Your task to perform on an android device: open wifi settings Image 0: 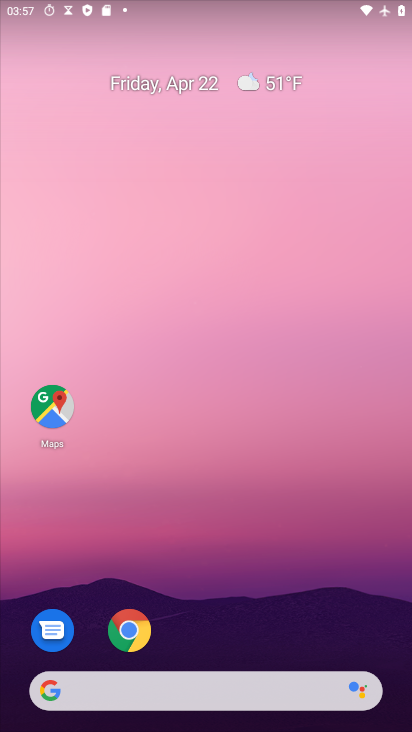
Step 0: drag from (245, 526) to (136, 44)
Your task to perform on an android device: open wifi settings Image 1: 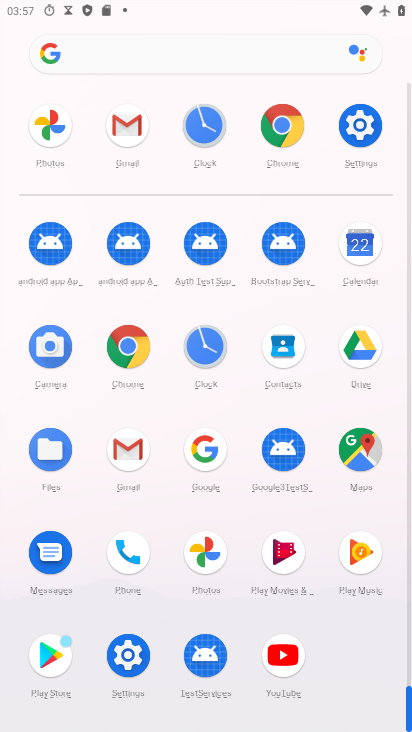
Step 1: click (125, 655)
Your task to perform on an android device: open wifi settings Image 2: 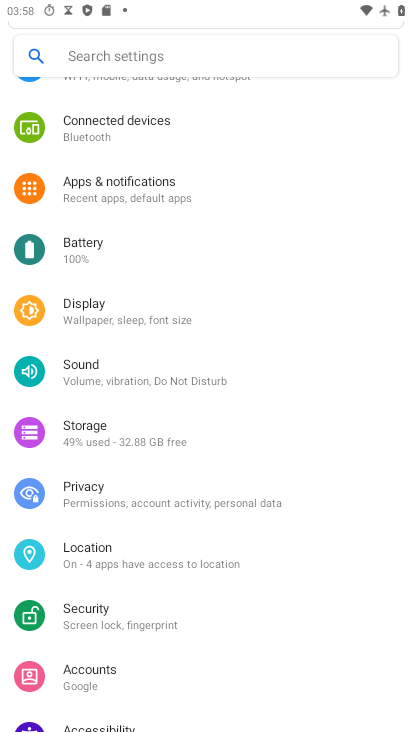
Step 2: drag from (261, 156) to (295, 544)
Your task to perform on an android device: open wifi settings Image 3: 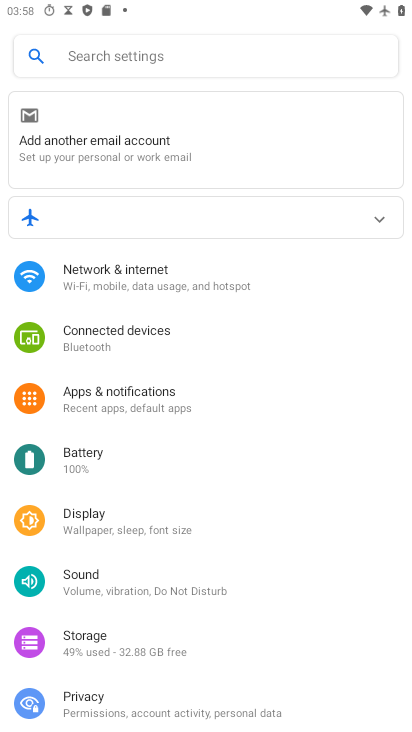
Step 3: click (119, 279)
Your task to perform on an android device: open wifi settings Image 4: 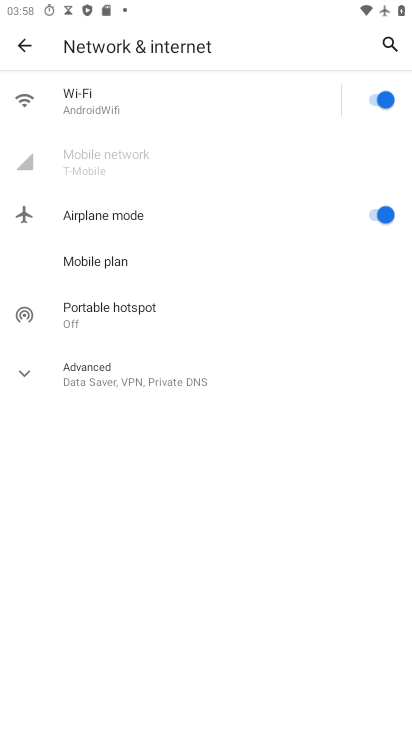
Step 4: click (114, 96)
Your task to perform on an android device: open wifi settings Image 5: 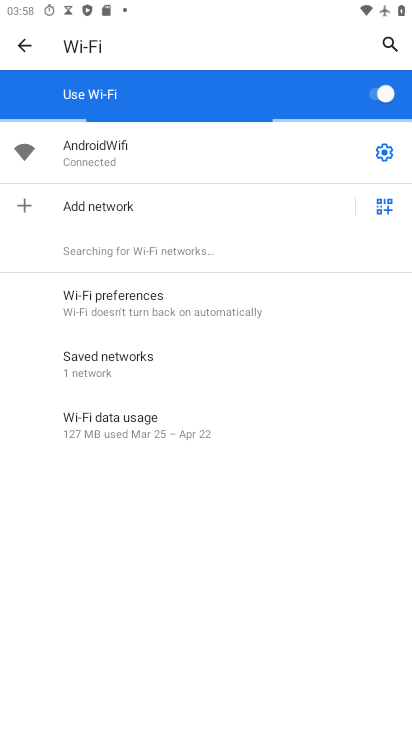
Step 5: task complete